Your task to perform on an android device: Open the web browser Image 0: 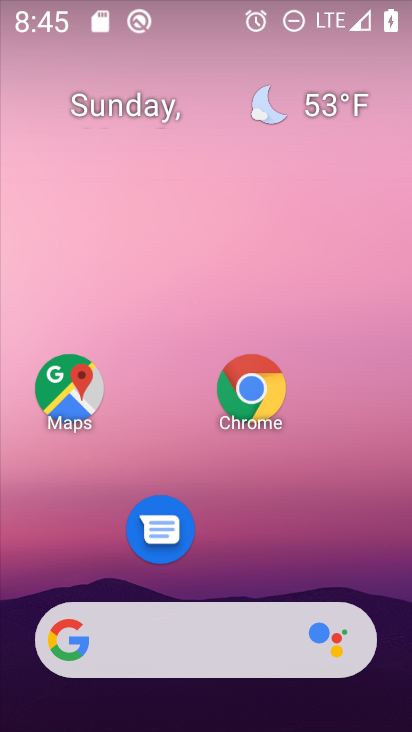
Step 0: click (272, 411)
Your task to perform on an android device: Open the web browser Image 1: 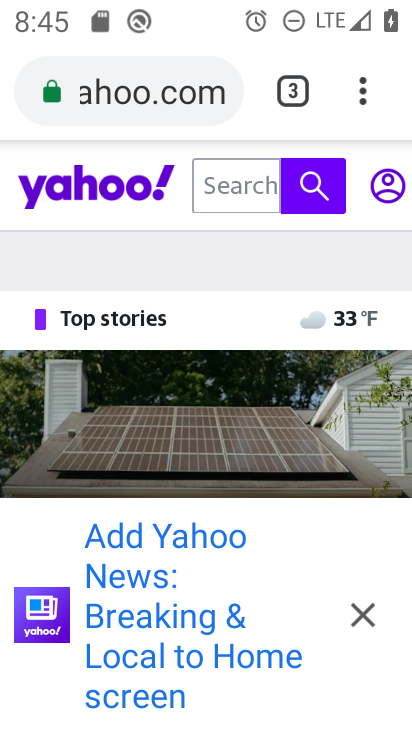
Step 1: click (369, 105)
Your task to perform on an android device: Open the web browser Image 2: 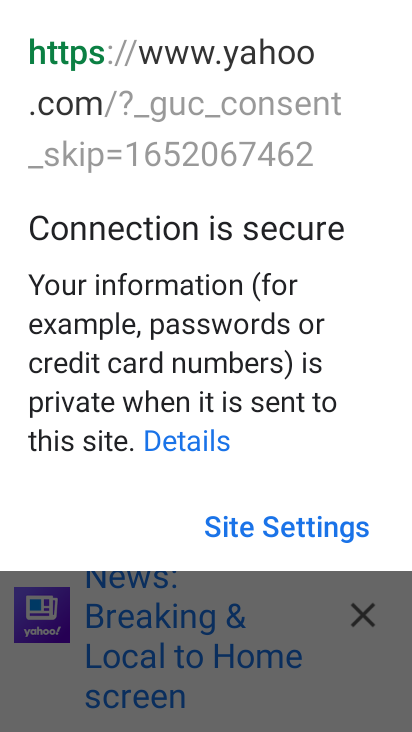
Step 2: click (181, 436)
Your task to perform on an android device: Open the web browser Image 3: 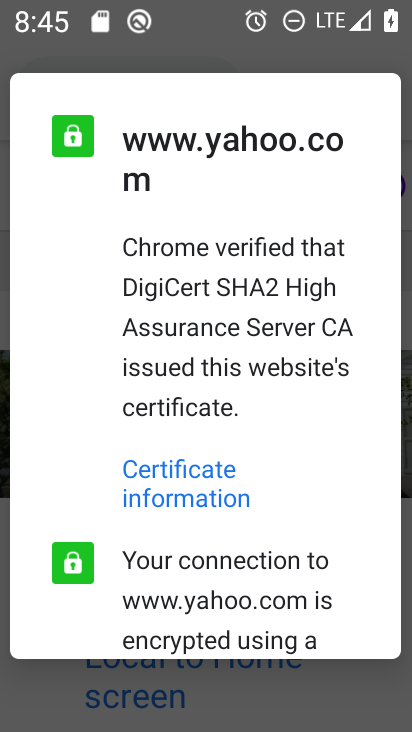
Step 3: drag from (198, 512) to (212, 312)
Your task to perform on an android device: Open the web browser Image 4: 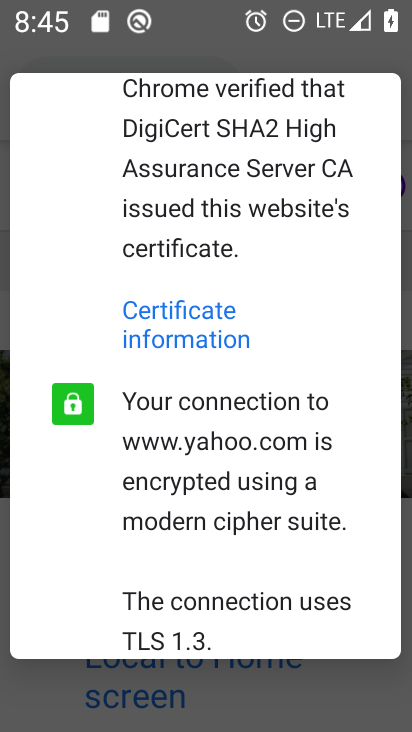
Step 4: press back button
Your task to perform on an android device: Open the web browser Image 5: 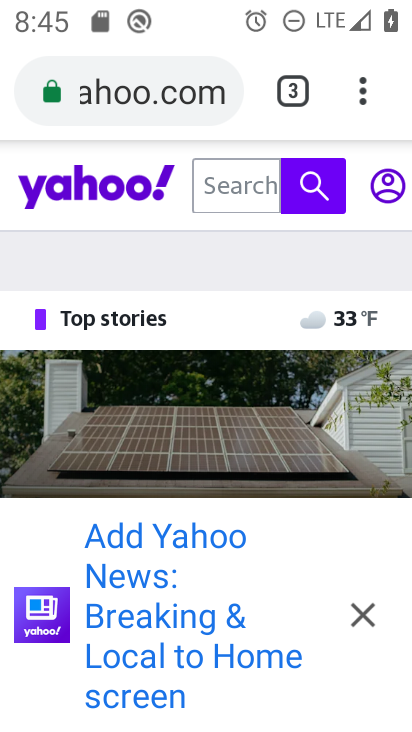
Step 5: drag from (297, 456) to (315, 312)
Your task to perform on an android device: Open the web browser Image 6: 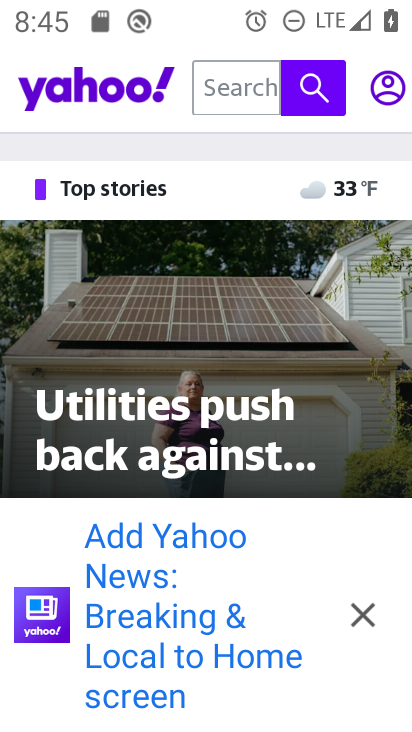
Step 6: click (360, 617)
Your task to perform on an android device: Open the web browser Image 7: 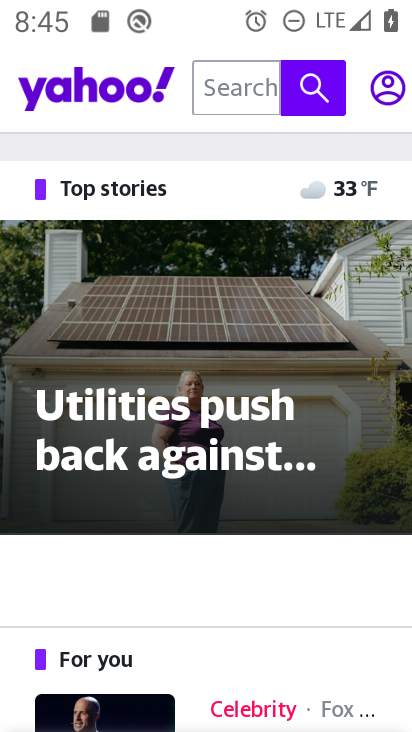
Step 7: task complete